Your task to perform on an android device: Is it going to rain today? Image 0: 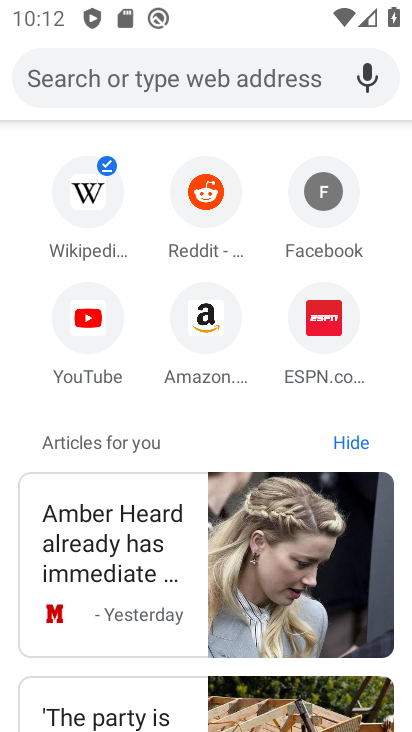
Step 0: press back button
Your task to perform on an android device: Is it going to rain today? Image 1: 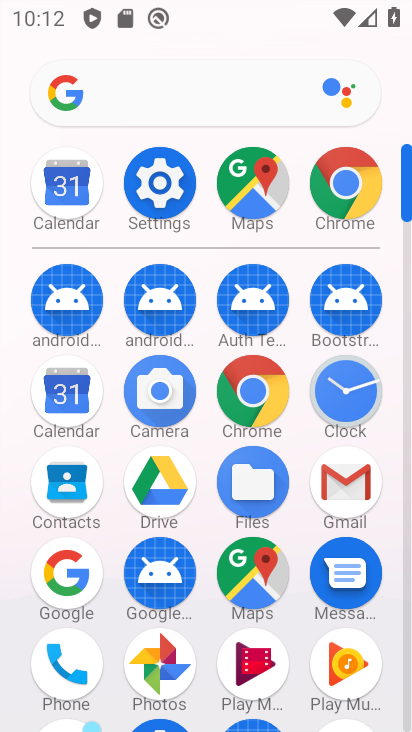
Step 1: press back button
Your task to perform on an android device: Is it going to rain today? Image 2: 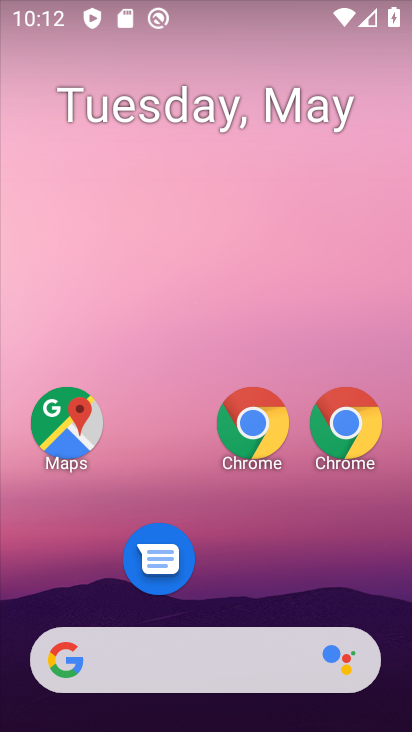
Step 2: drag from (1, 185) to (382, 510)
Your task to perform on an android device: Is it going to rain today? Image 3: 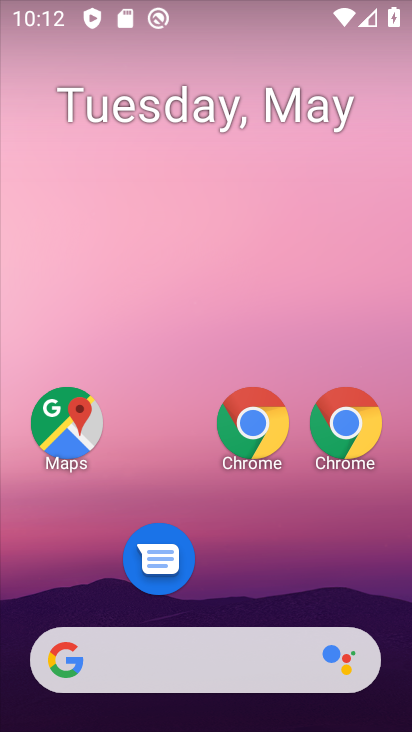
Step 3: drag from (3, 174) to (394, 336)
Your task to perform on an android device: Is it going to rain today? Image 4: 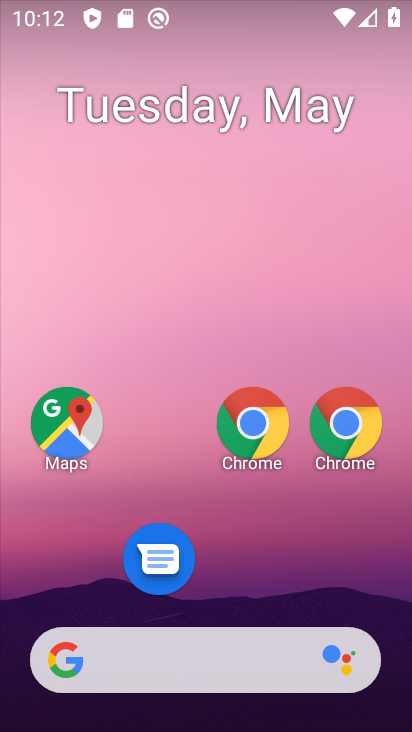
Step 4: drag from (6, 188) to (399, 405)
Your task to perform on an android device: Is it going to rain today? Image 5: 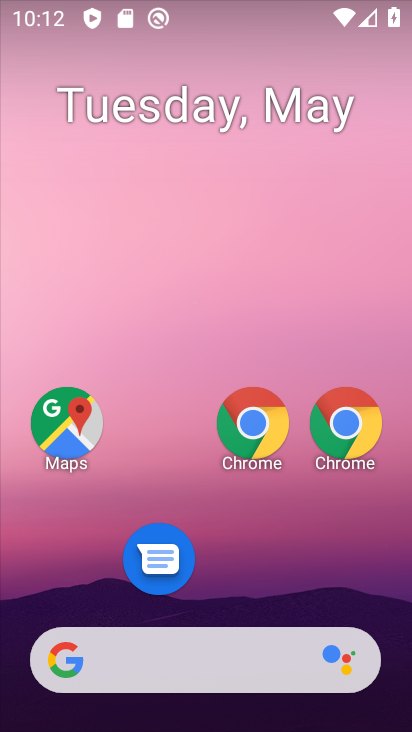
Step 5: drag from (14, 239) to (406, 356)
Your task to perform on an android device: Is it going to rain today? Image 6: 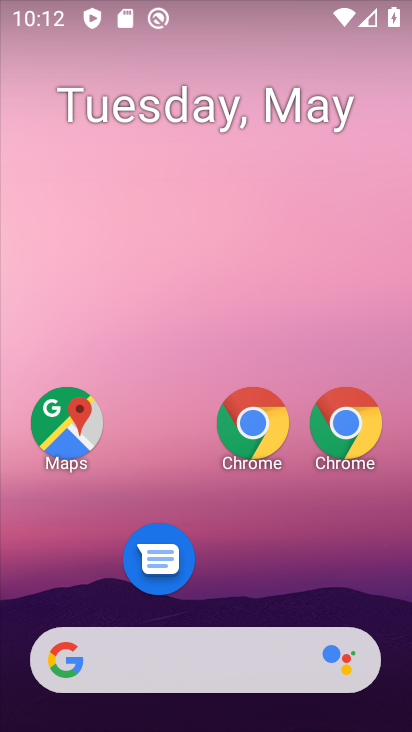
Step 6: drag from (9, 208) to (371, 343)
Your task to perform on an android device: Is it going to rain today? Image 7: 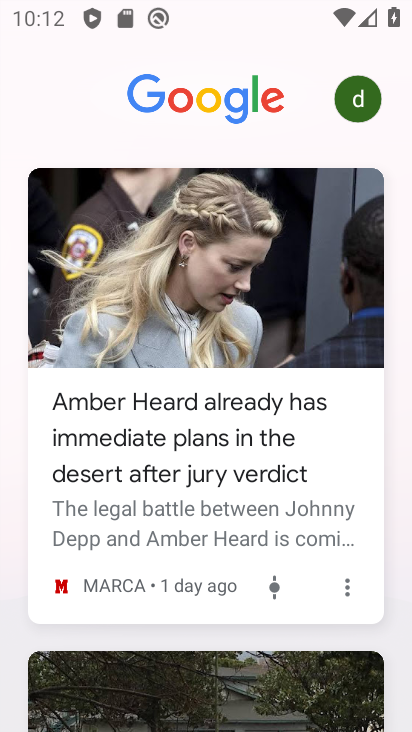
Step 7: drag from (169, 193) to (277, 513)
Your task to perform on an android device: Is it going to rain today? Image 8: 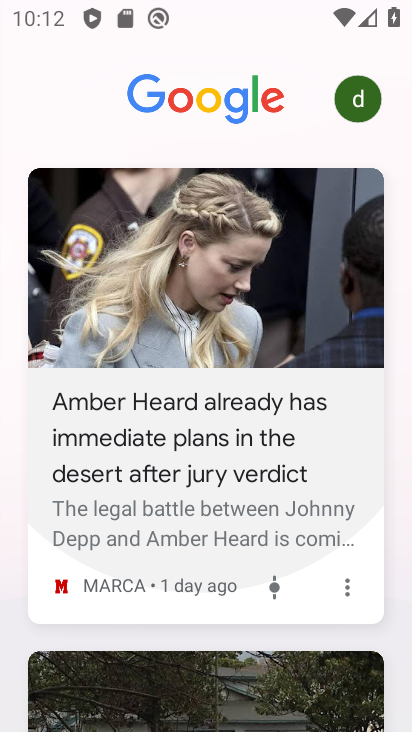
Step 8: drag from (238, 264) to (203, 605)
Your task to perform on an android device: Is it going to rain today? Image 9: 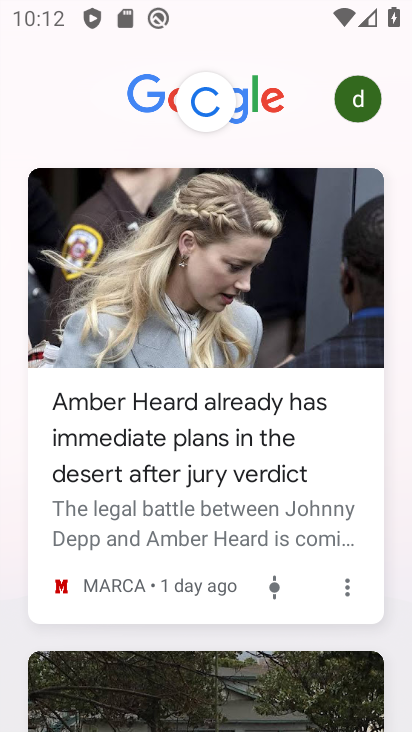
Step 9: drag from (150, 250) to (211, 633)
Your task to perform on an android device: Is it going to rain today? Image 10: 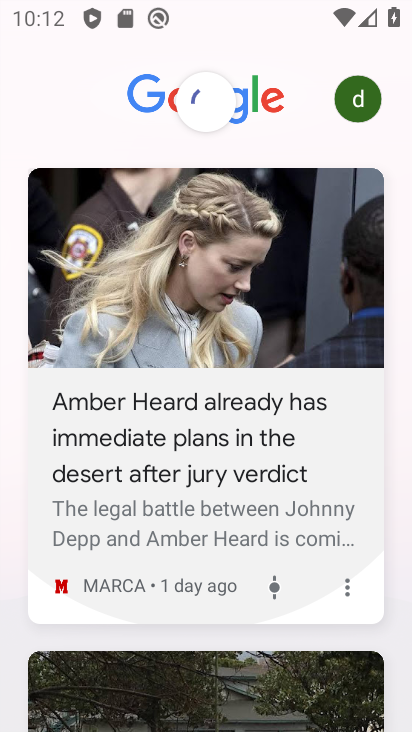
Step 10: drag from (146, 207) to (242, 590)
Your task to perform on an android device: Is it going to rain today? Image 11: 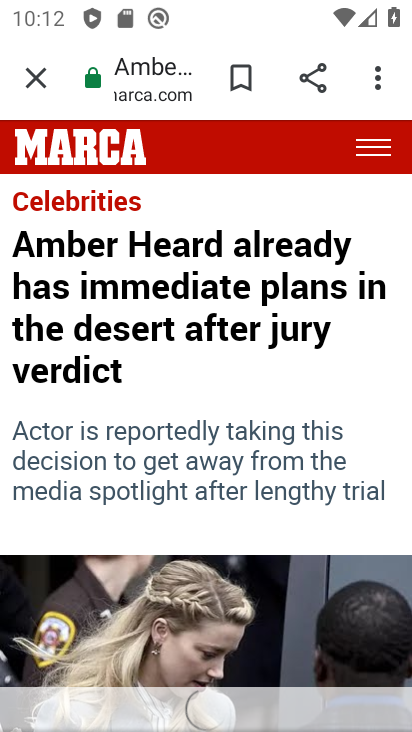
Step 11: click (32, 76)
Your task to perform on an android device: Is it going to rain today? Image 12: 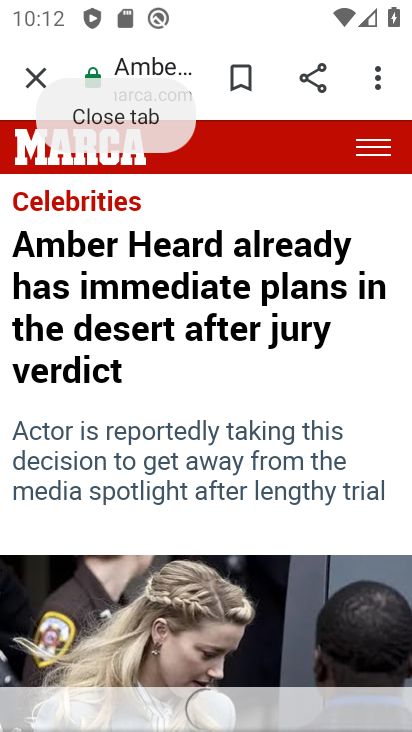
Step 12: task complete